Your task to perform on an android device: change the clock display to show seconds Image 0: 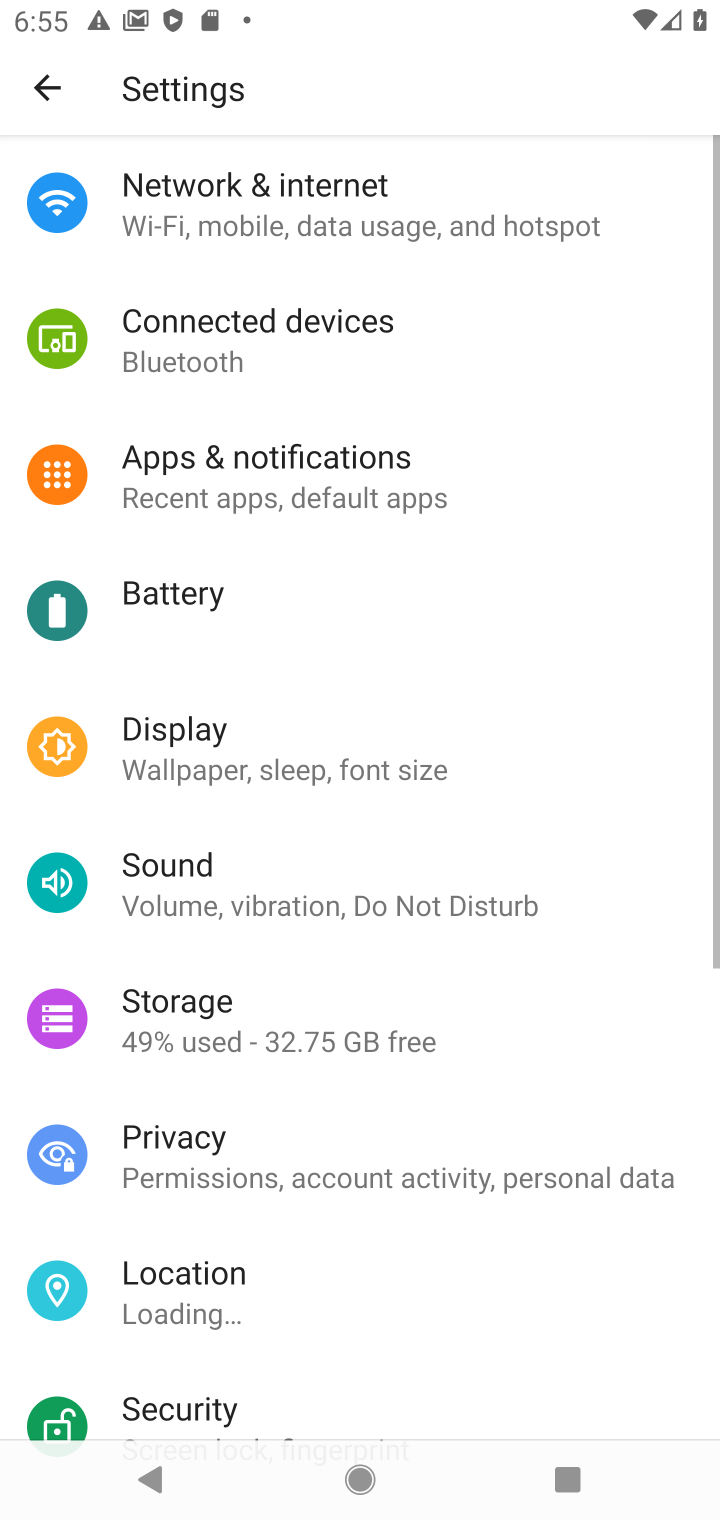
Step 0: press home button
Your task to perform on an android device: change the clock display to show seconds Image 1: 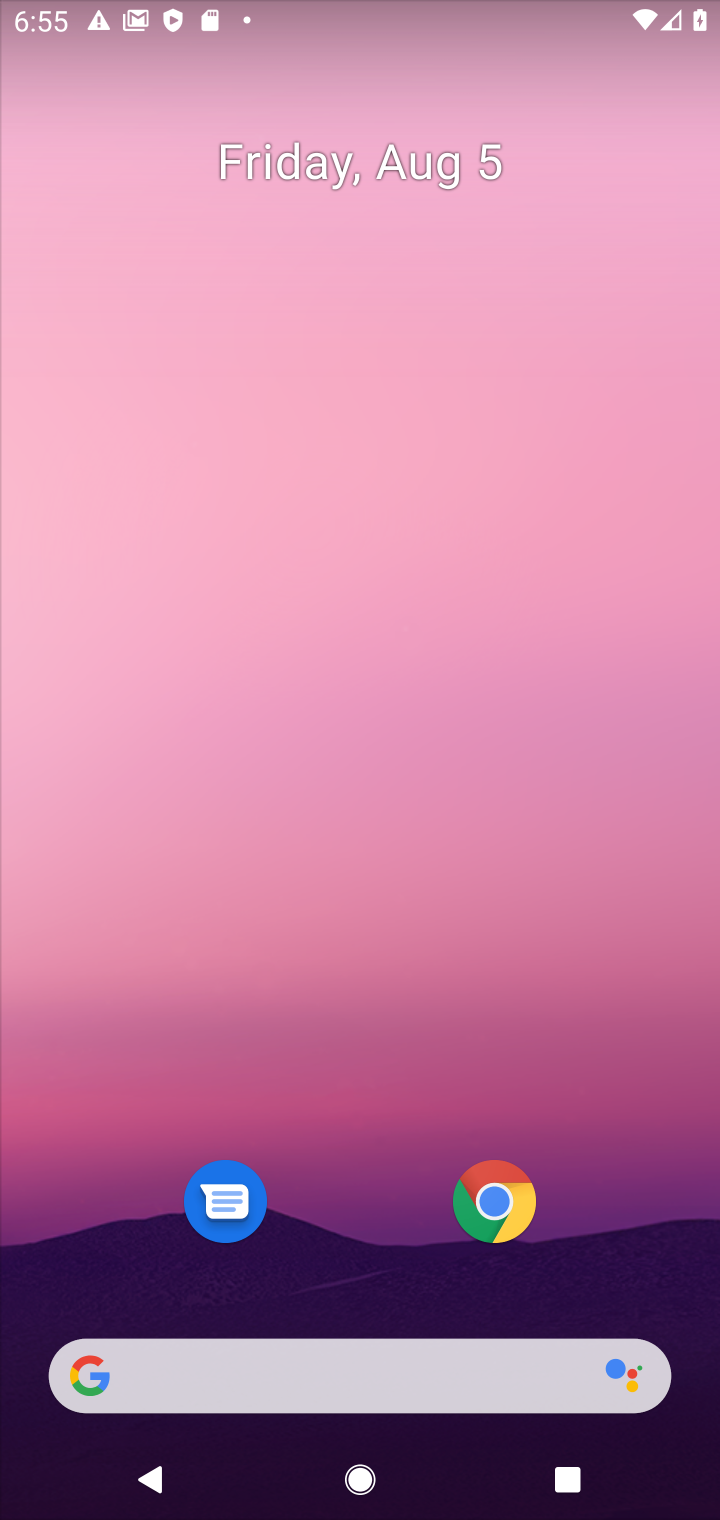
Step 1: drag from (411, 1407) to (264, 311)
Your task to perform on an android device: change the clock display to show seconds Image 2: 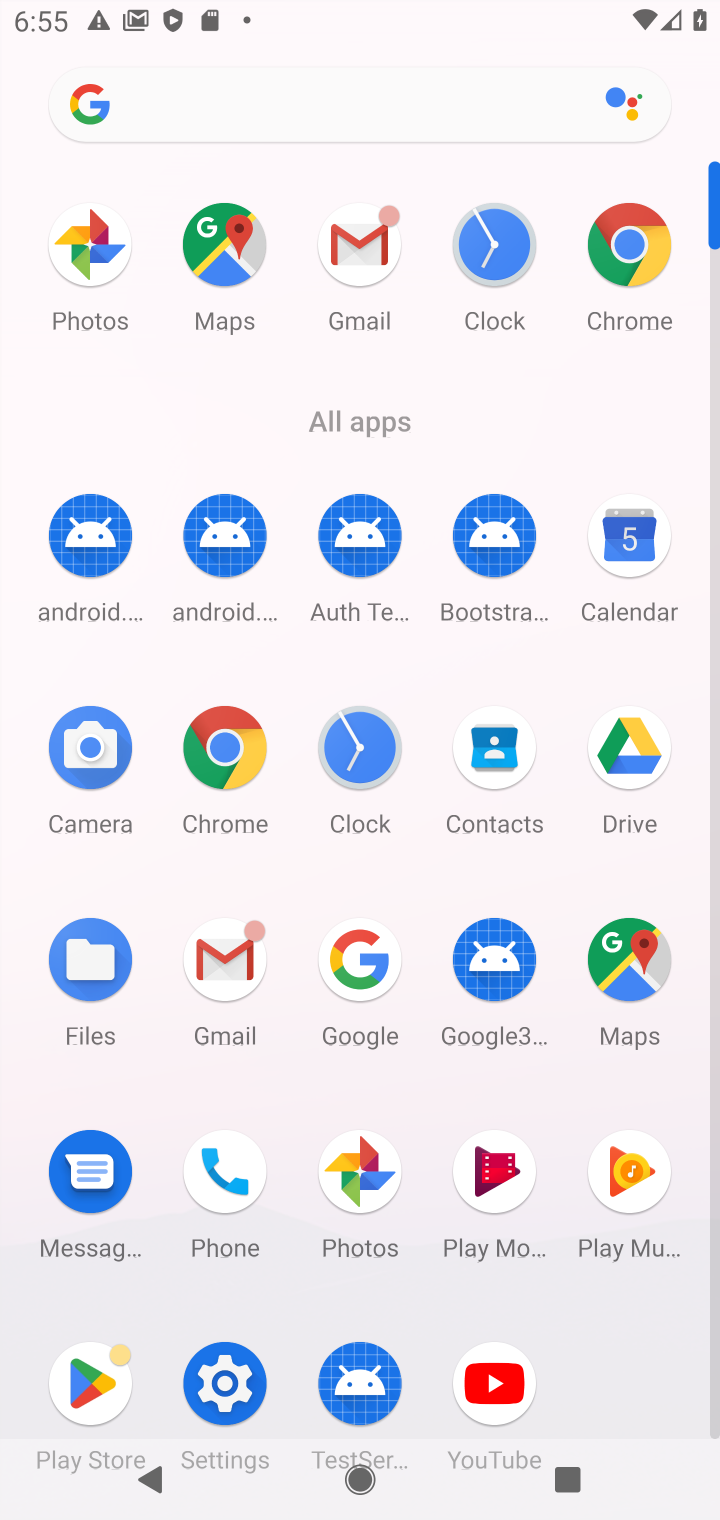
Step 2: click (500, 266)
Your task to perform on an android device: change the clock display to show seconds Image 3: 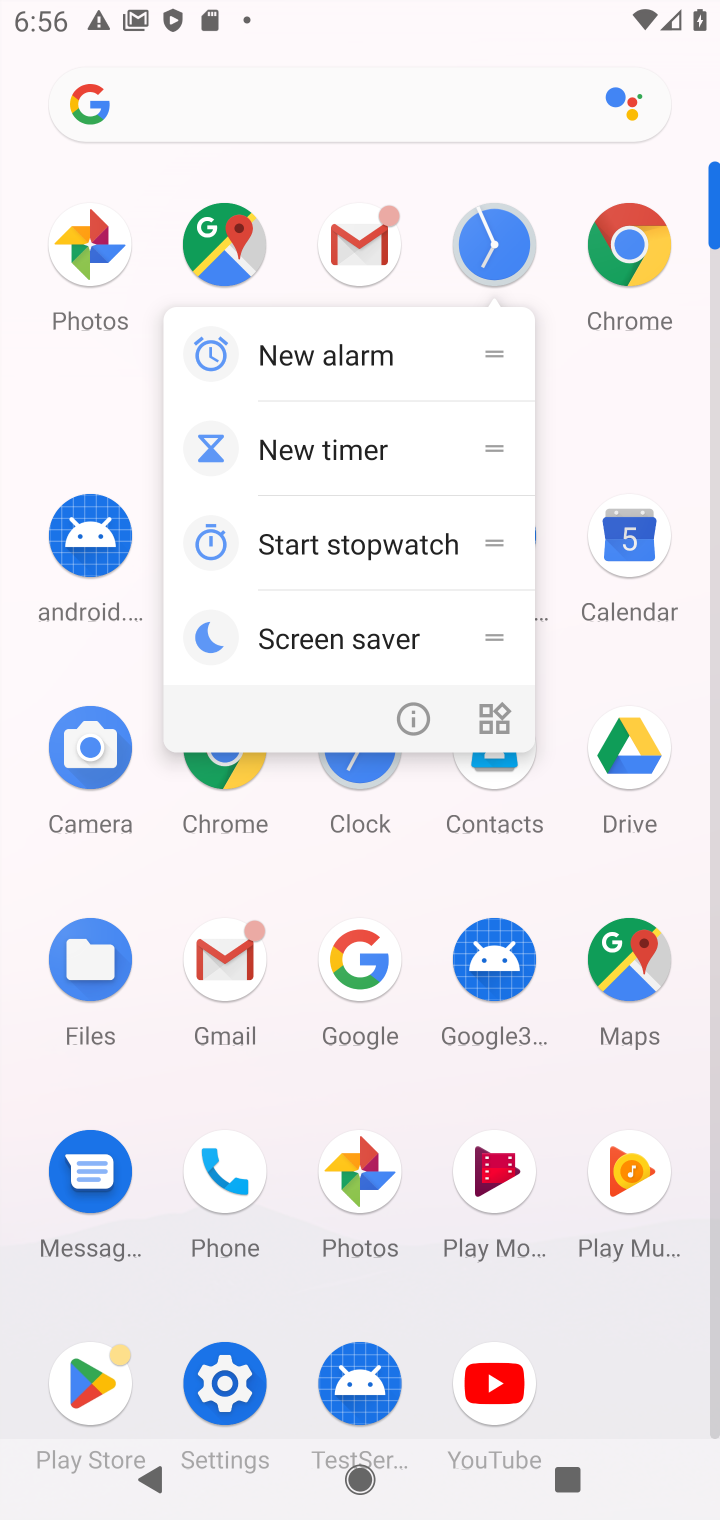
Step 3: click (494, 246)
Your task to perform on an android device: change the clock display to show seconds Image 4: 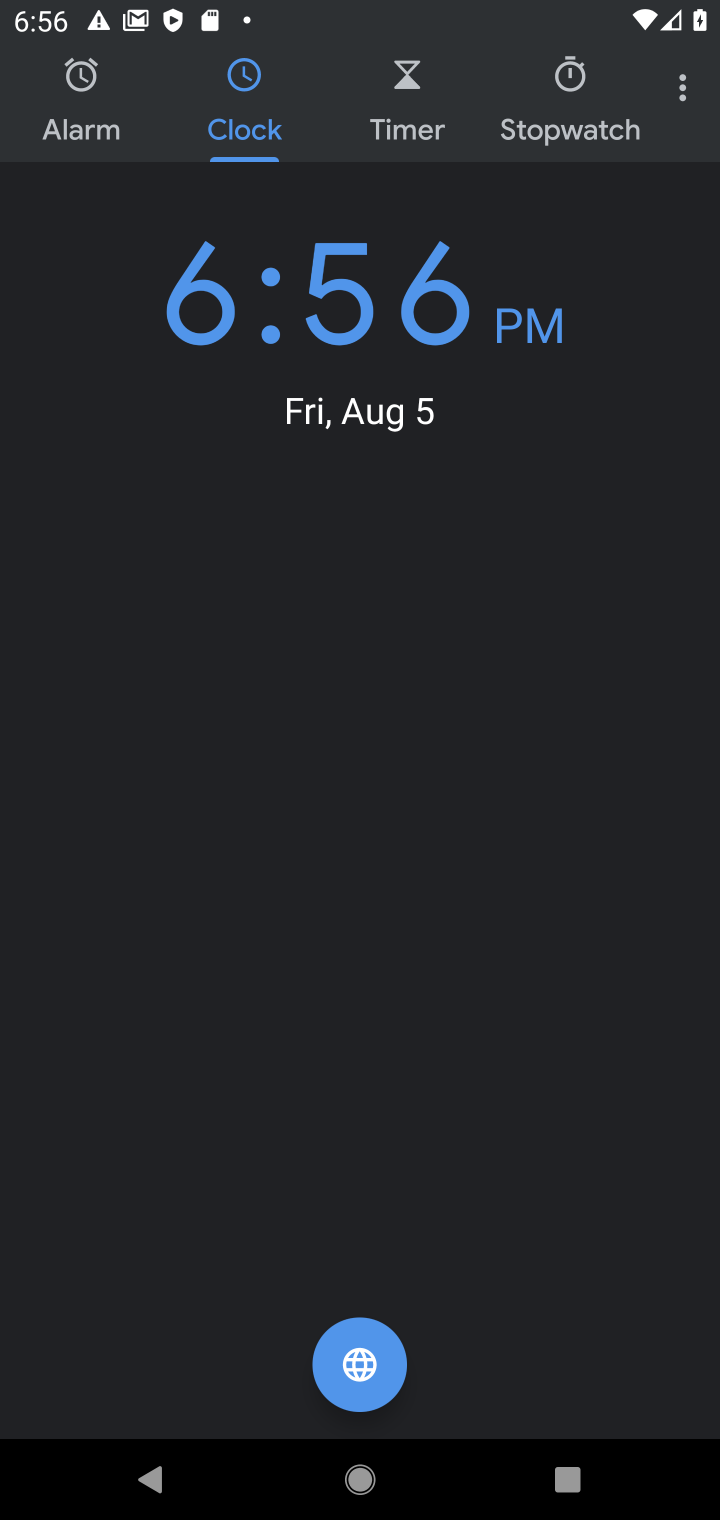
Step 4: click (695, 98)
Your task to perform on an android device: change the clock display to show seconds Image 5: 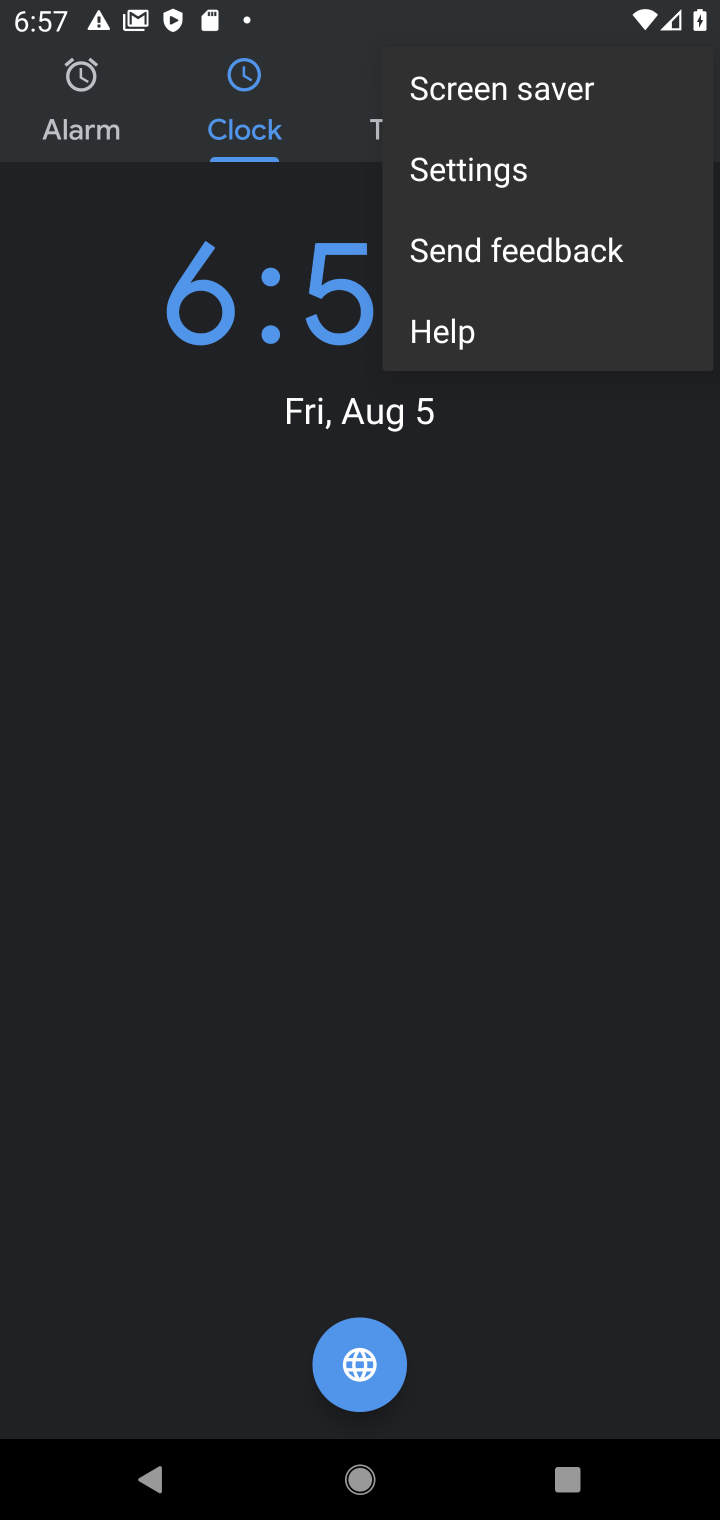
Step 5: click (499, 193)
Your task to perform on an android device: change the clock display to show seconds Image 6: 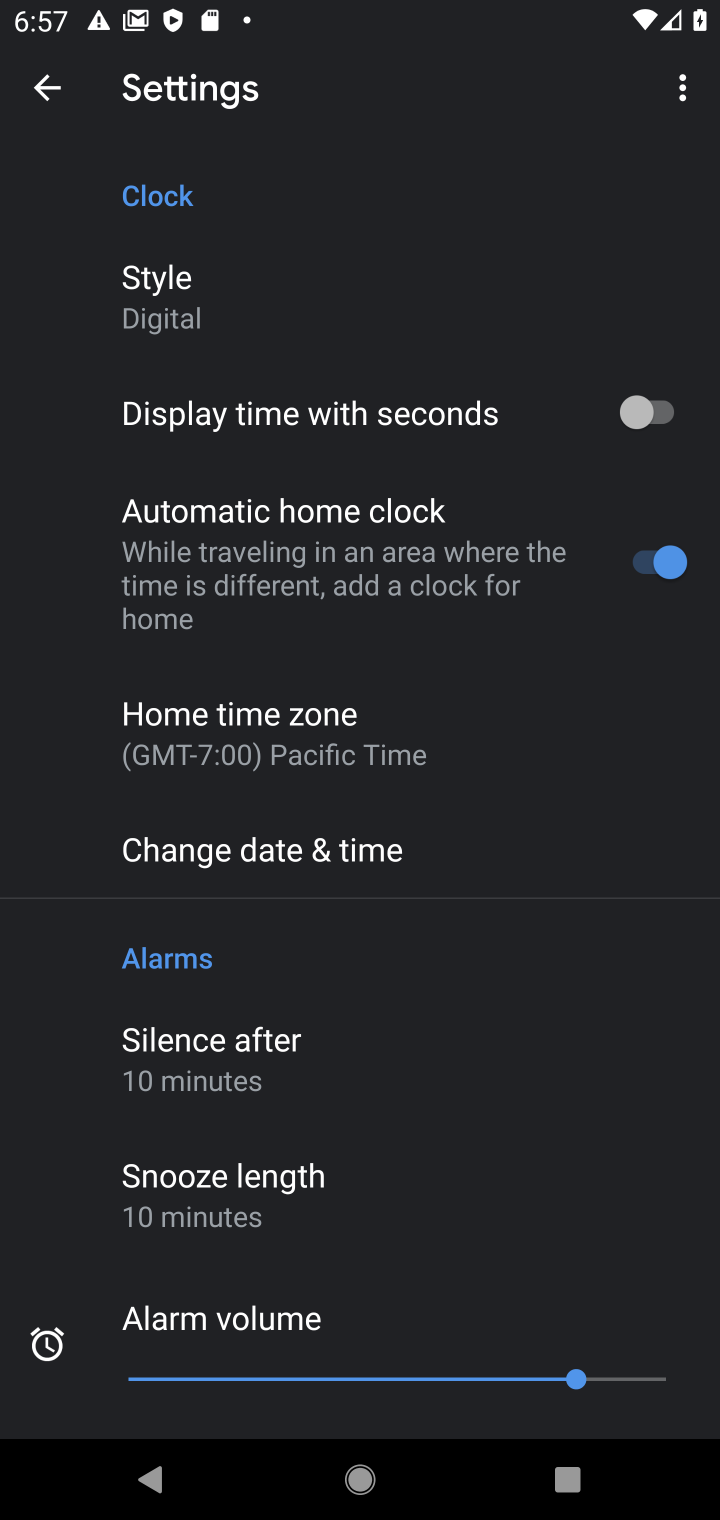
Step 6: click (582, 421)
Your task to perform on an android device: change the clock display to show seconds Image 7: 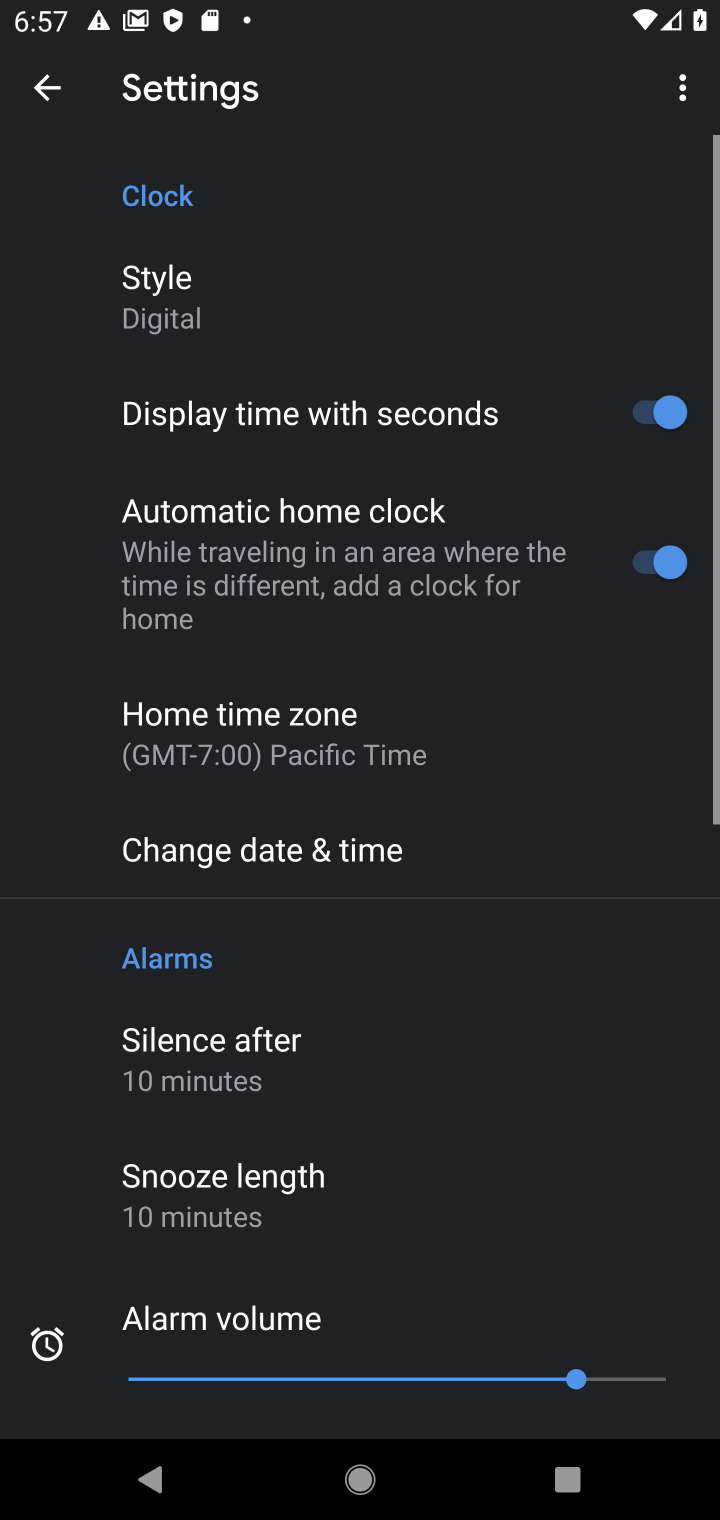
Step 7: task complete